Your task to perform on an android device: turn off priority inbox in the gmail app Image 0: 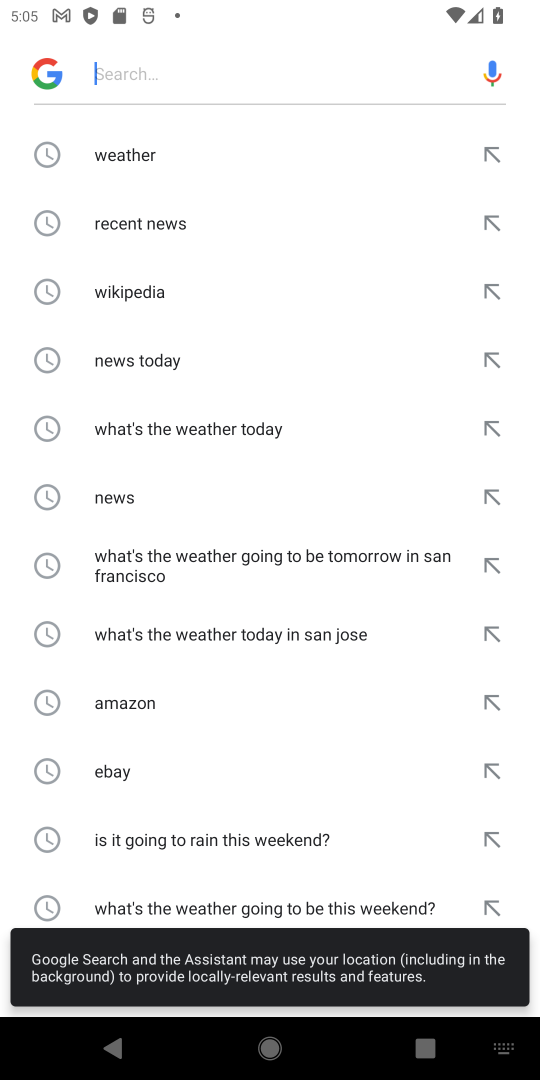
Step 0: press home button
Your task to perform on an android device: turn off priority inbox in the gmail app Image 1: 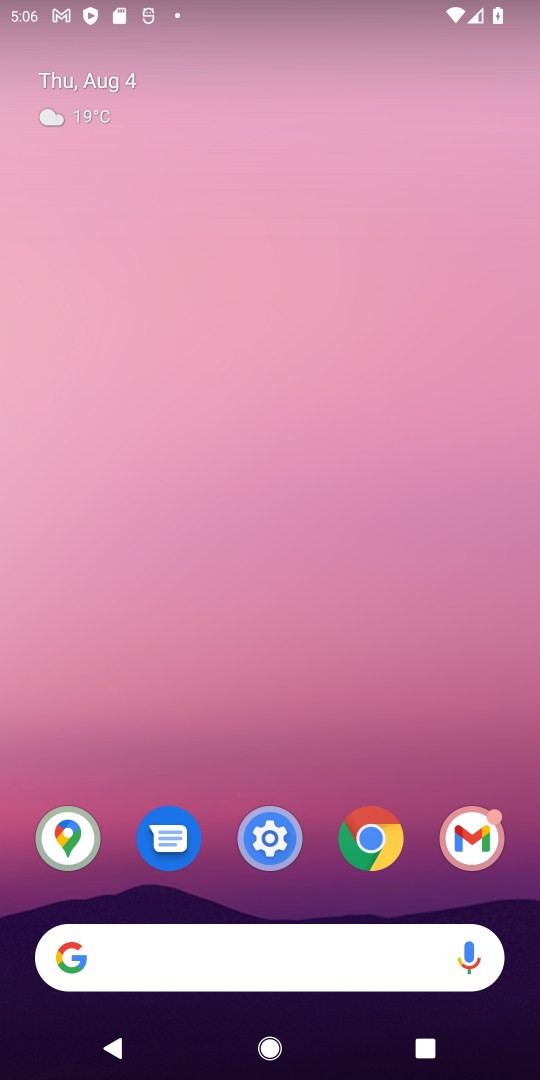
Step 1: drag from (255, 804) to (351, 105)
Your task to perform on an android device: turn off priority inbox in the gmail app Image 2: 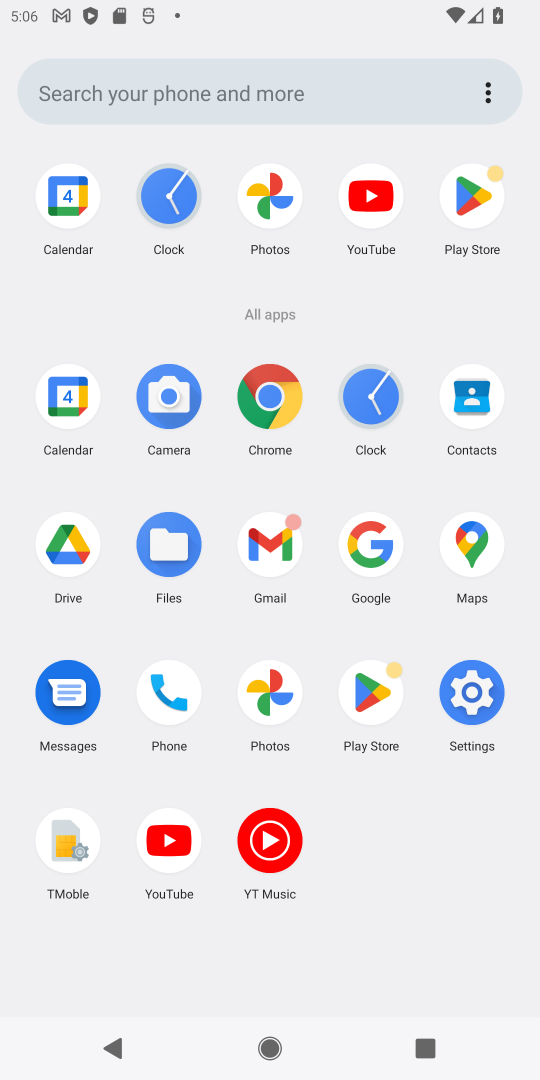
Step 2: click (258, 543)
Your task to perform on an android device: turn off priority inbox in the gmail app Image 3: 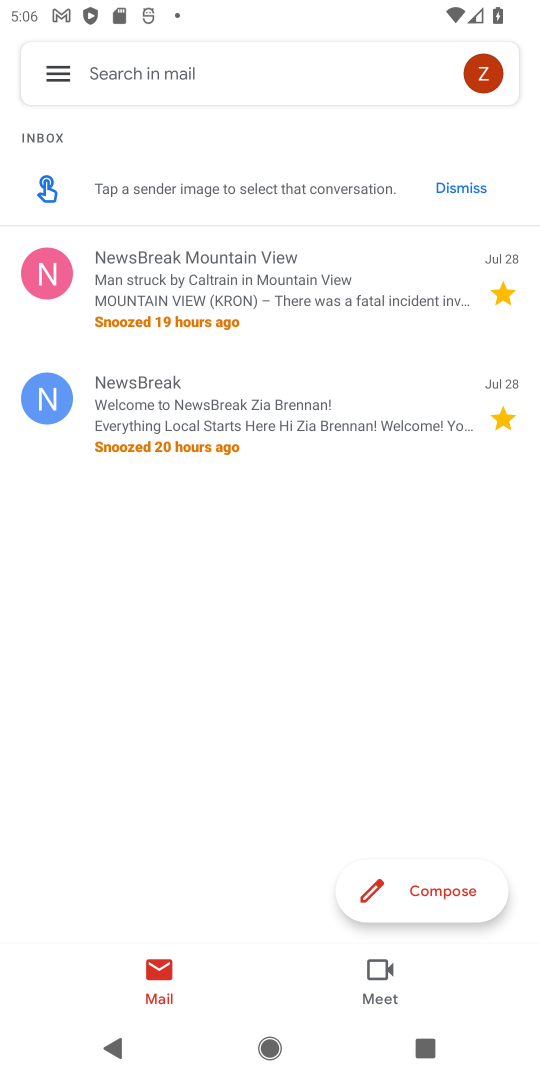
Step 3: click (75, 85)
Your task to perform on an android device: turn off priority inbox in the gmail app Image 4: 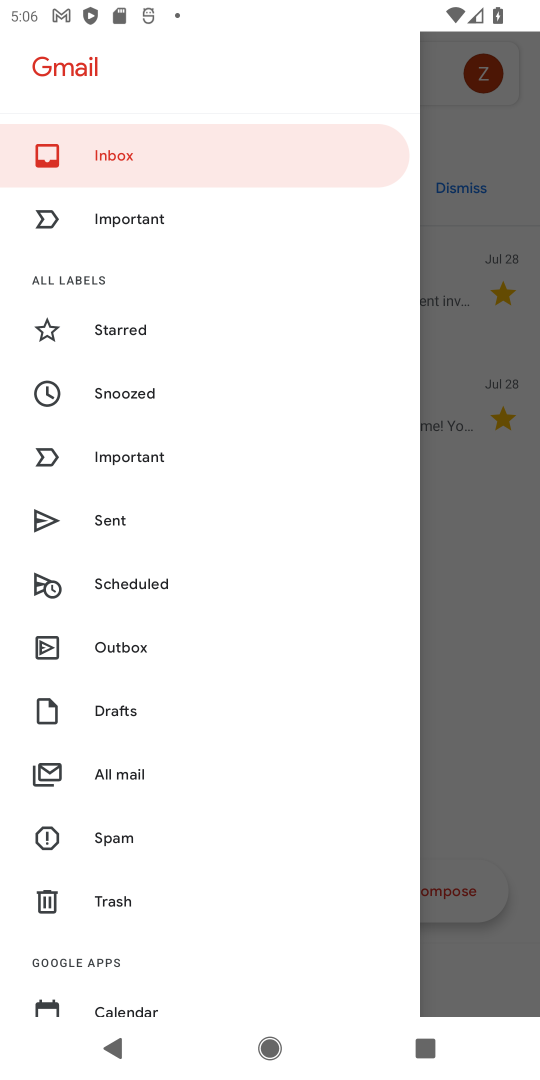
Step 4: drag from (145, 911) to (271, 141)
Your task to perform on an android device: turn off priority inbox in the gmail app Image 5: 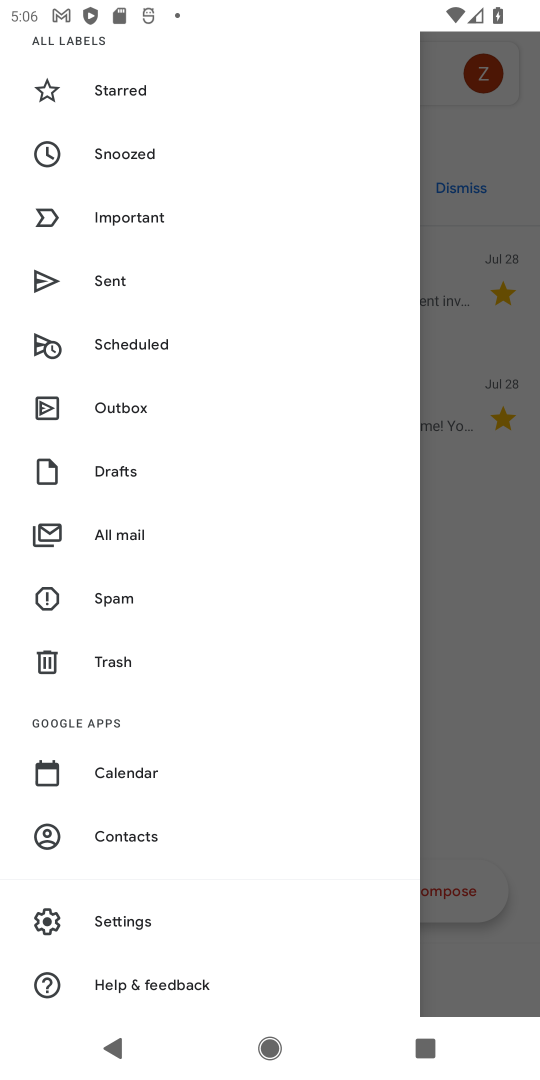
Step 5: click (126, 915)
Your task to perform on an android device: turn off priority inbox in the gmail app Image 6: 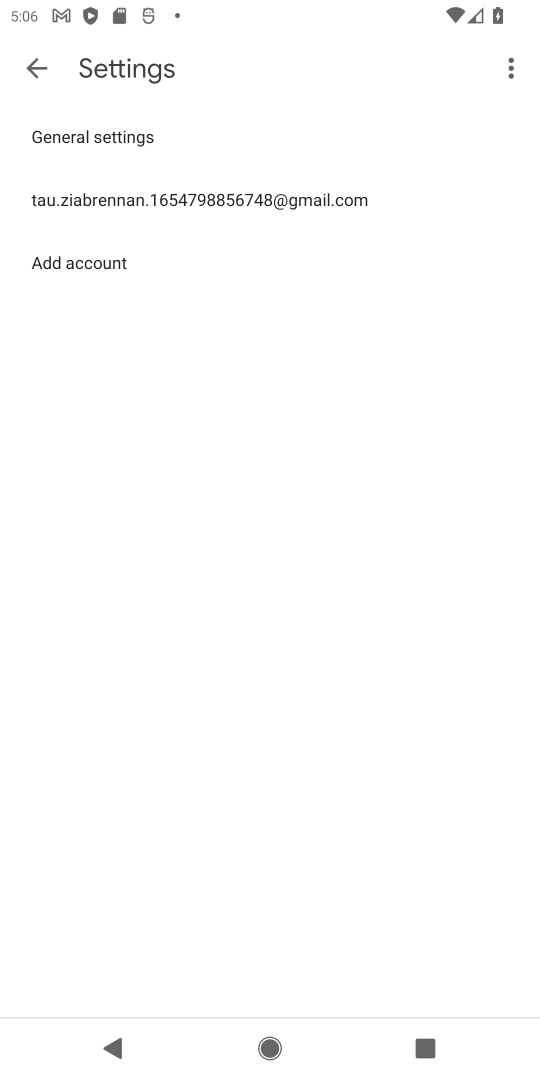
Step 6: click (76, 220)
Your task to perform on an android device: turn off priority inbox in the gmail app Image 7: 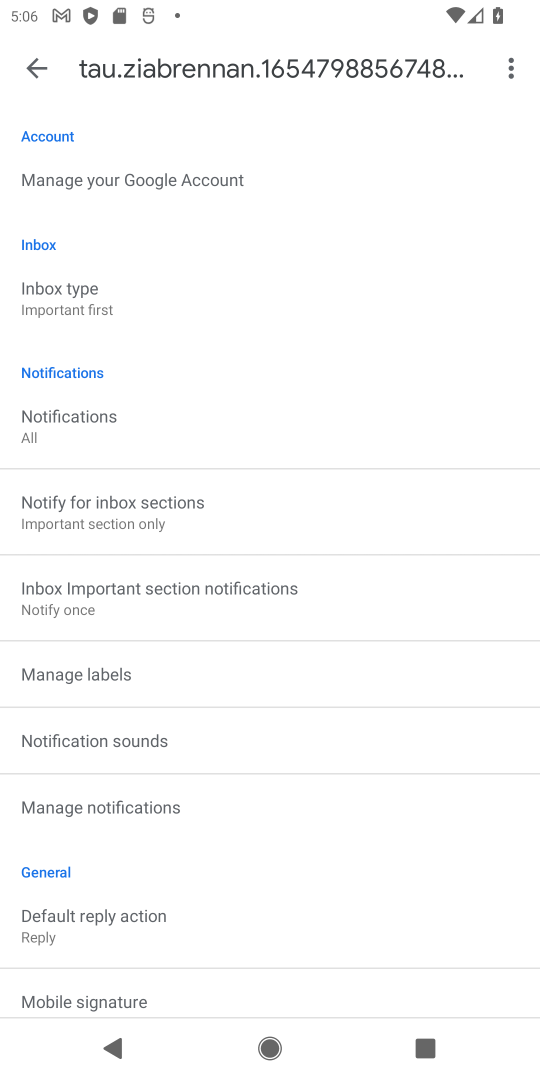
Step 7: click (100, 314)
Your task to perform on an android device: turn off priority inbox in the gmail app Image 8: 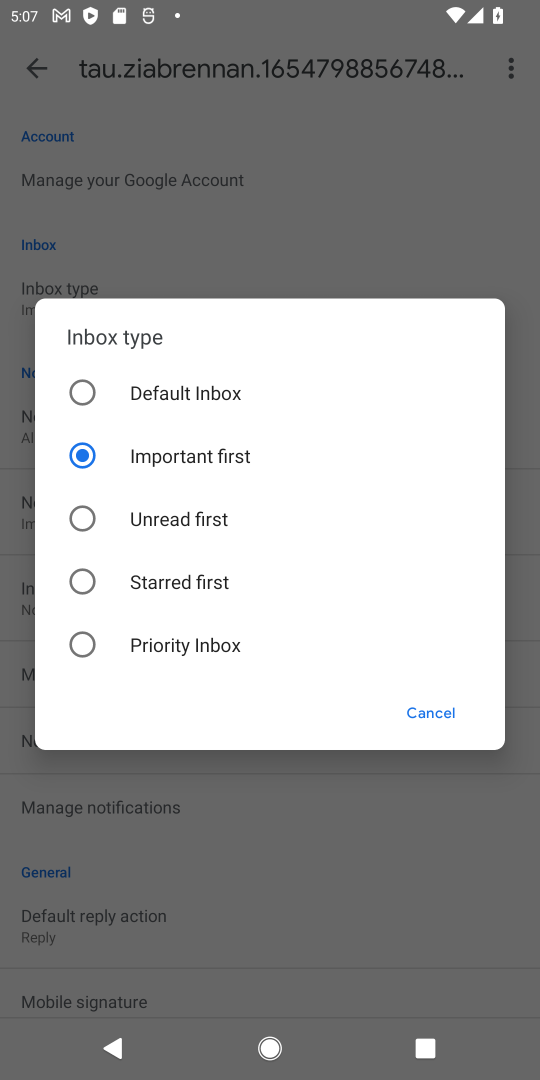
Step 8: task complete